Your task to perform on an android device: delete location history Image 0: 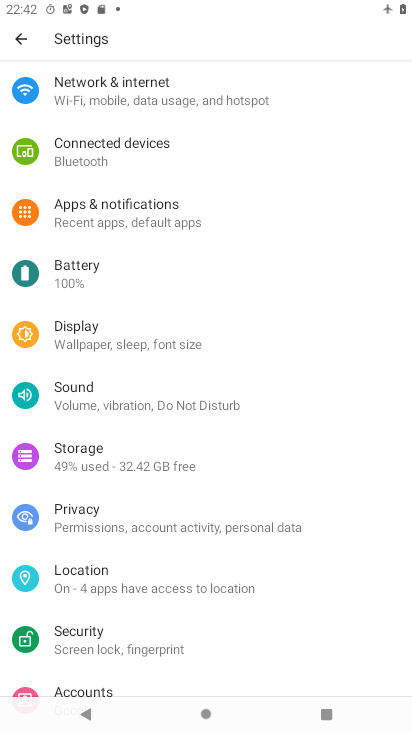
Step 0: press home button
Your task to perform on an android device: delete location history Image 1: 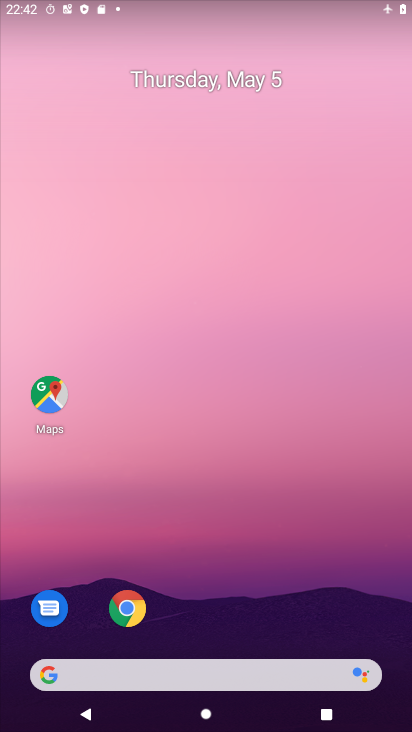
Step 1: drag from (291, 620) to (261, 21)
Your task to perform on an android device: delete location history Image 2: 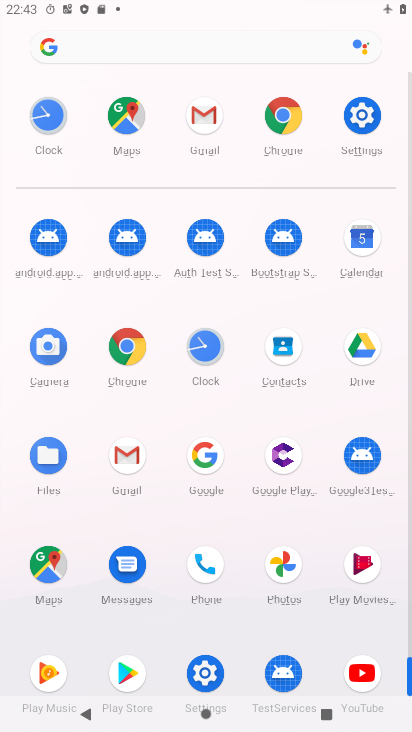
Step 2: click (51, 561)
Your task to perform on an android device: delete location history Image 3: 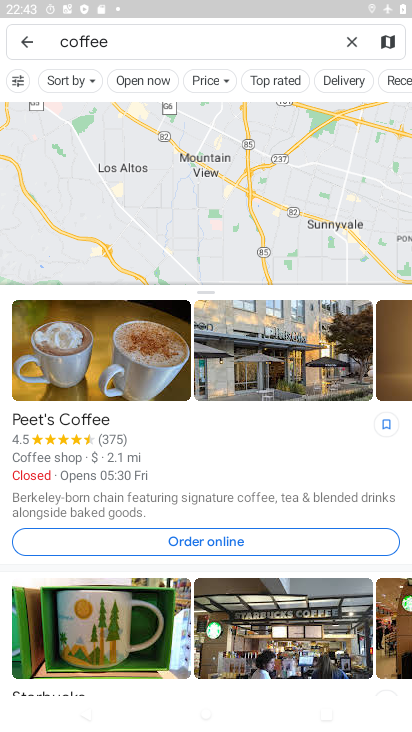
Step 3: press back button
Your task to perform on an android device: delete location history Image 4: 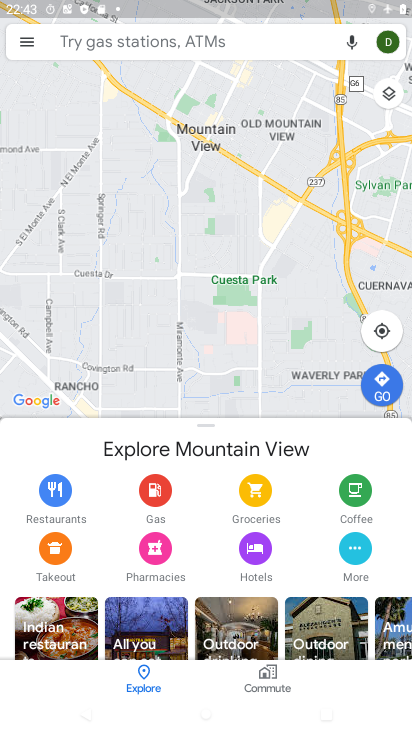
Step 4: click (24, 40)
Your task to perform on an android device: delete location history Image 5: 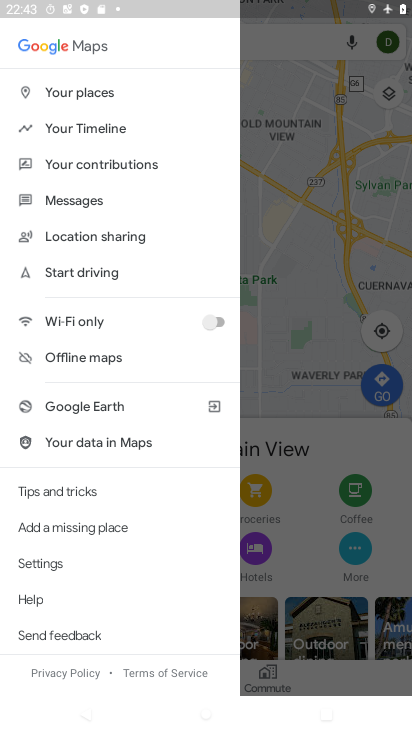
Step 5: click (285, 355)
Your task to perform on an android device: delete location history Image 6: 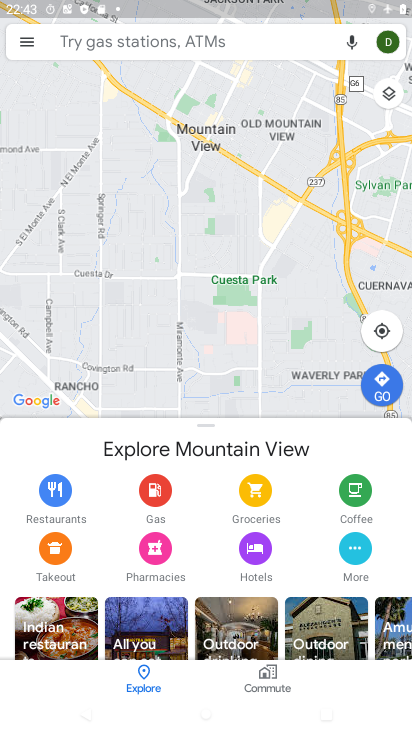
Step 6: click (18, 38)
Your task to perform on an android device: delete location history Image 7: 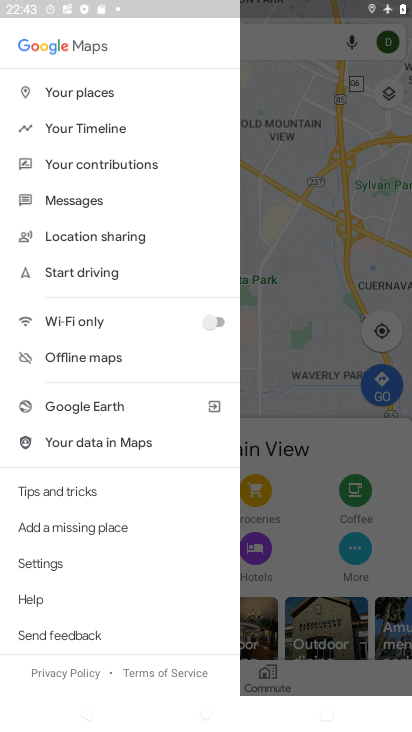
Step 7: click (75, 135)
Your task to perform on an android device: delete location history Image 8: 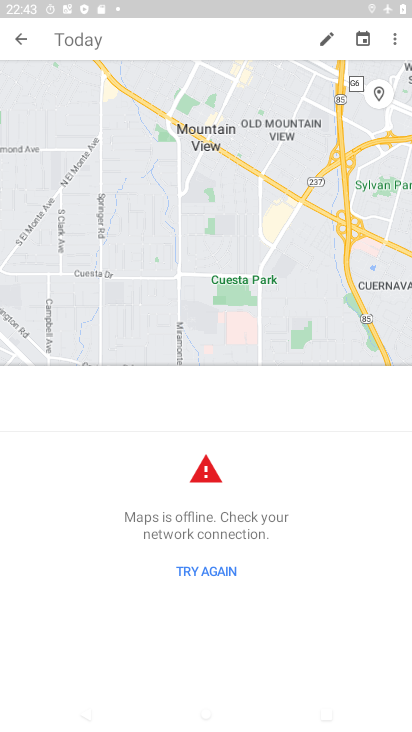
Step 8: task complete